Your task to perform on an android device: Go to wifi settings Image 0: 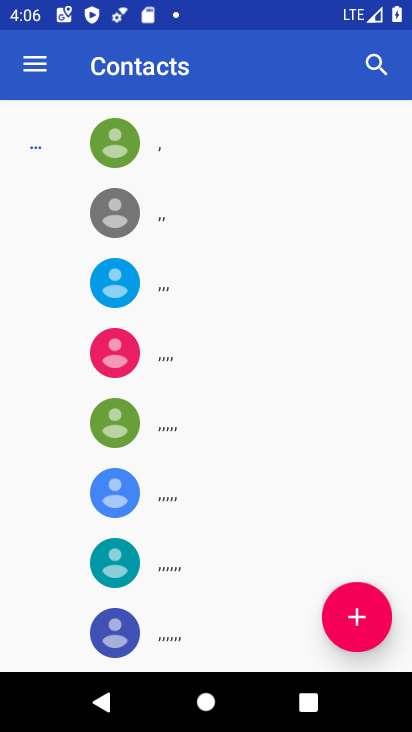
Step 0: press home button
Your task to perform on an android device: Go to wifi settings Image 1: 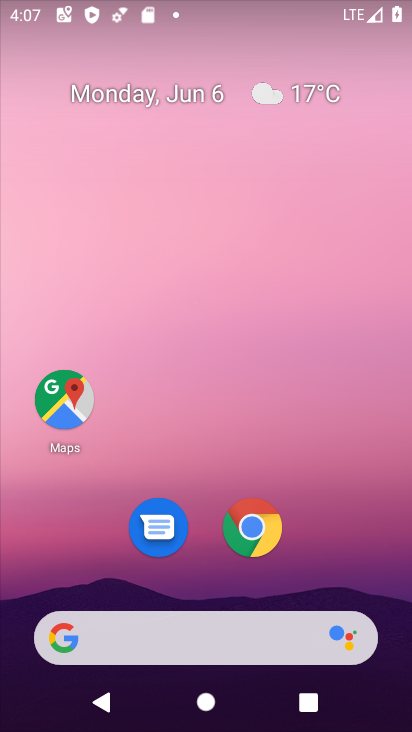
Step 1: drag from (348, 540) to (320, 112)
Your task to perform on an android device: Go to wifi settings Image 2: 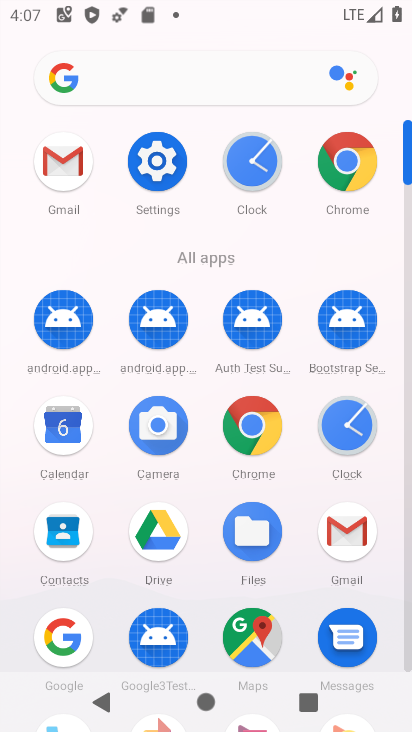
Step 2: click (148, 144)
Your task to perform on an android device: Go to wifi settings Image 3: 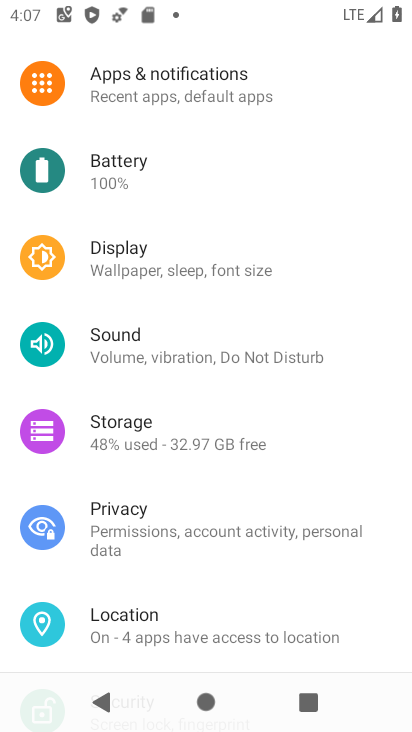
Step 3: drag from (371, 75) to (349, 495)
Your task to perform on an android device: Go to wifi settings Image 4: 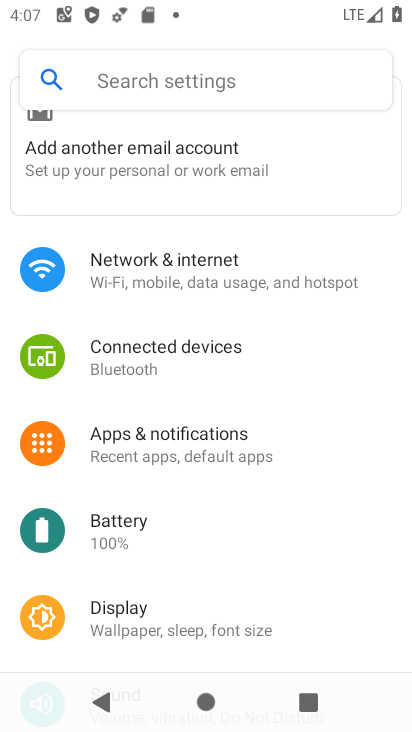
Step 4: click (284, 273)
Your task to perform on an android device: Go to wifi settings Image 5: 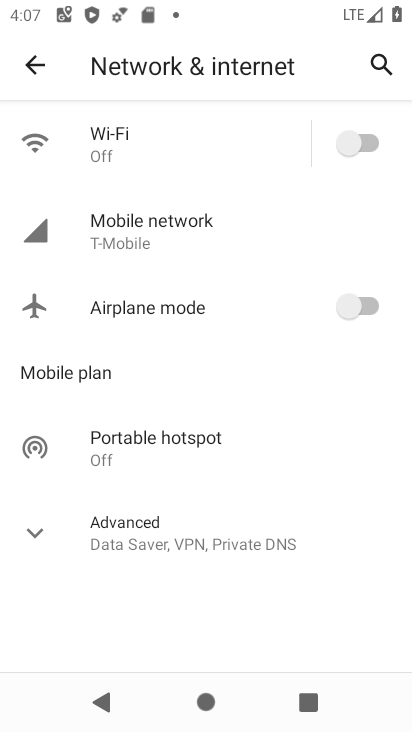
Step 5: click (213, 154)
Your task to perform on an android device: Go to wifi settings Image 6: 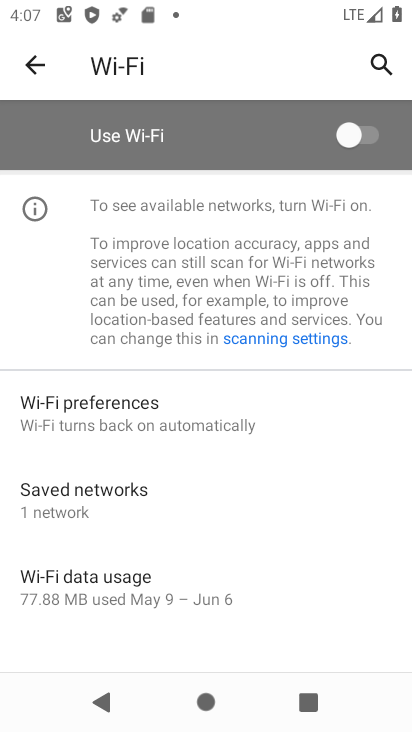
Step 6: task complete